Your task to perform on an android device: change the clock display to show seconds Image 0: 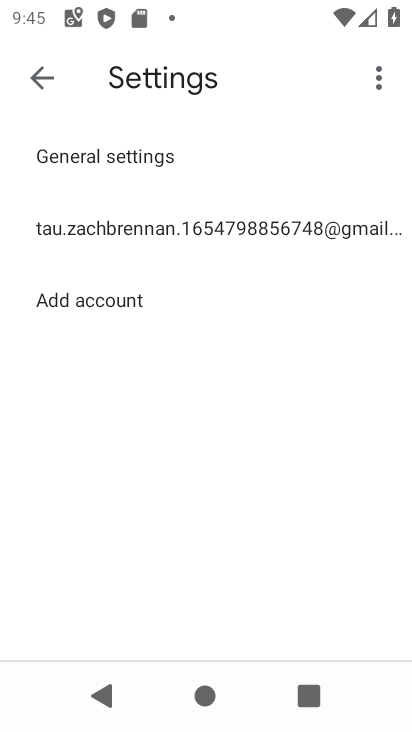
Step 0: press home button
Your task to perform on an android device: change the clock display to show seconds Image 1: 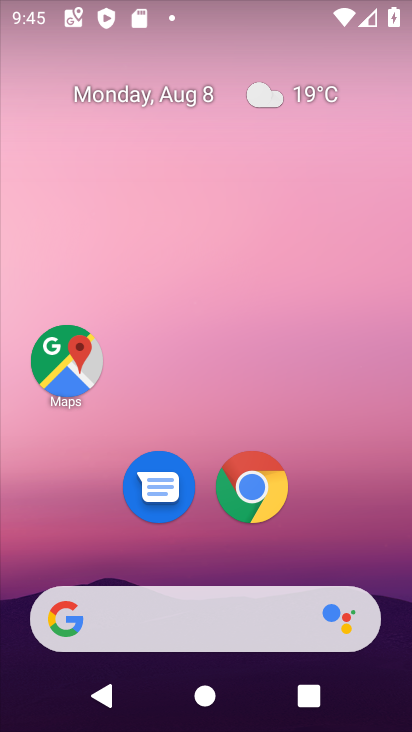
Step 1: drag from (207, 551) to (222, 113)
Your task to perform on an android device: change the clock display to show seconds Image 2: 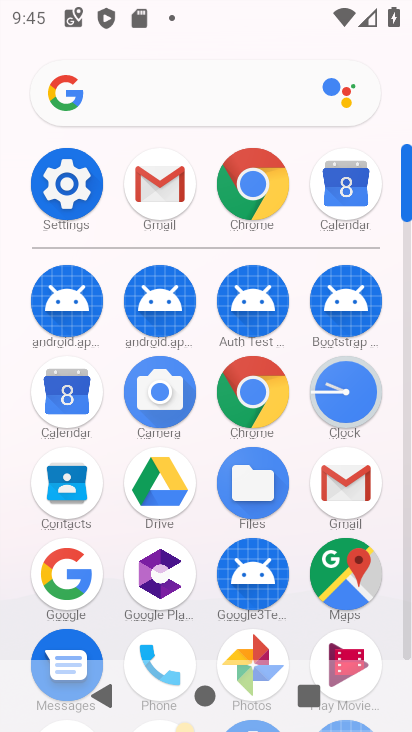
Step 2: click (344, 395)
Your task to perform on an android device: change the clock display to show seconds Image 3: 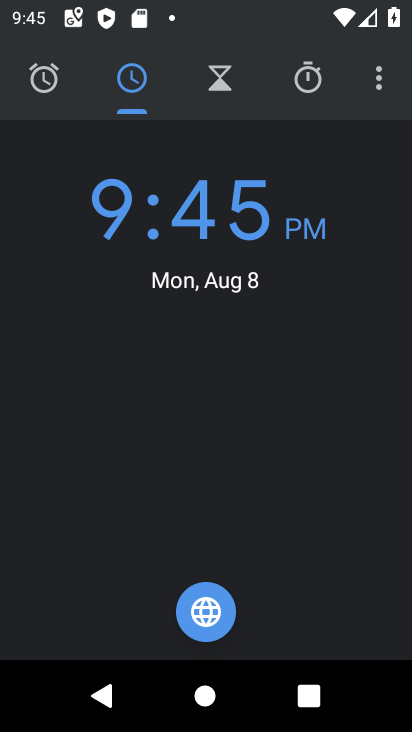
Step 3: click (382, 85)
Your task to perform on an android device: change the clock display to show seconds Image 4: 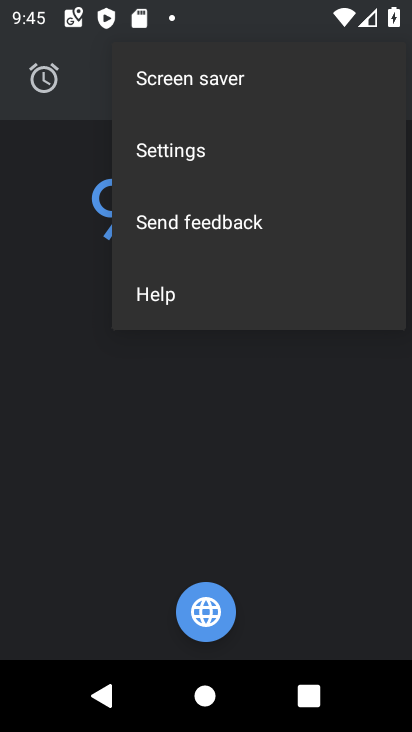
Step 4: click (174, 157)
Your task to perform on an android device: change the clock display to show seconds Image 5: 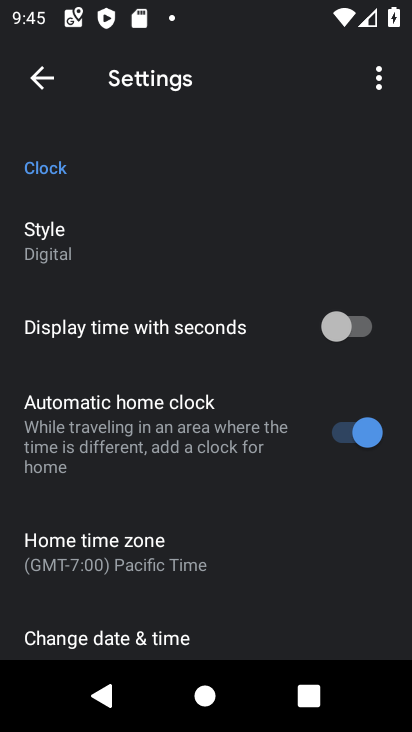
Step 5: click (353, 332)
Your task to perform on an android device: change the clock display to show seconds Image 6: 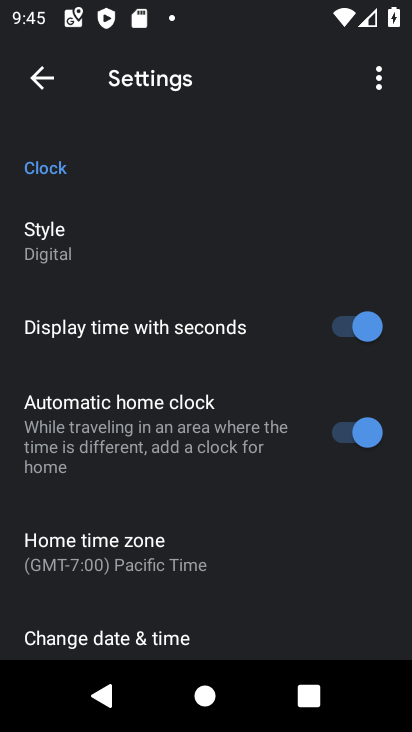
Step 6: task complete